Your task to perform on an android device: Open calendar and show me the fourth week of next month Image 0: 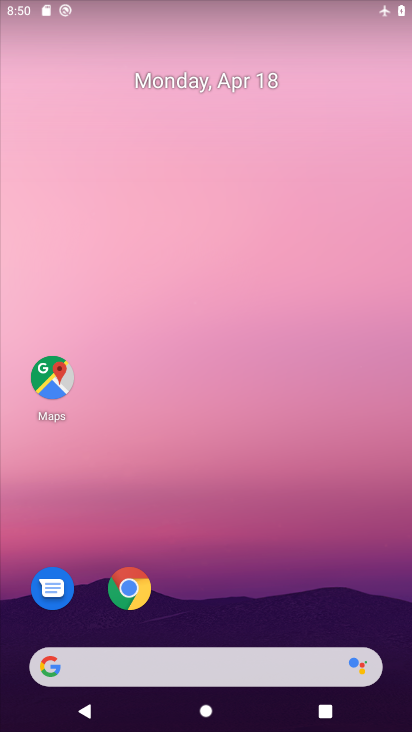
Step 0: drag from (249, 564) to (265, 61)
Your task to perform on an android device: Open calendar and show me the fourth week of next month Image 1: 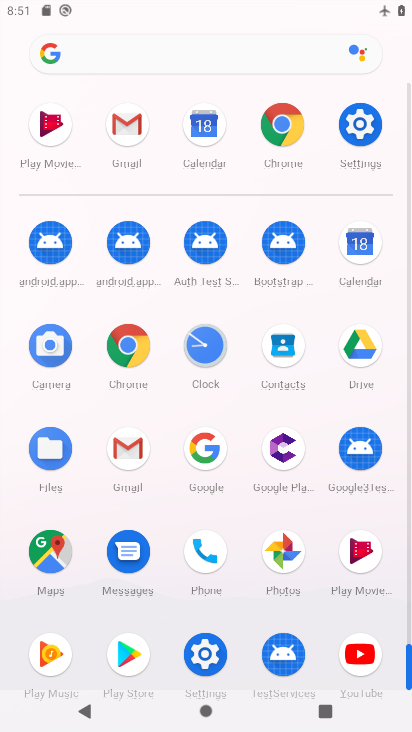
Step 1: click (361, 249)
Your task to perform on an android device: Open calendar and show me the fourth week of next month Image 2: 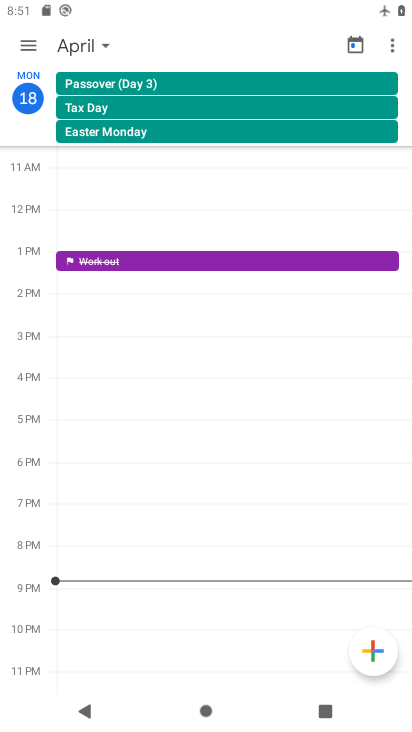
Step 2: click (67, 37)
Your task to perform on an android device: Open calendar and show me the fourth week of next month Image 3: 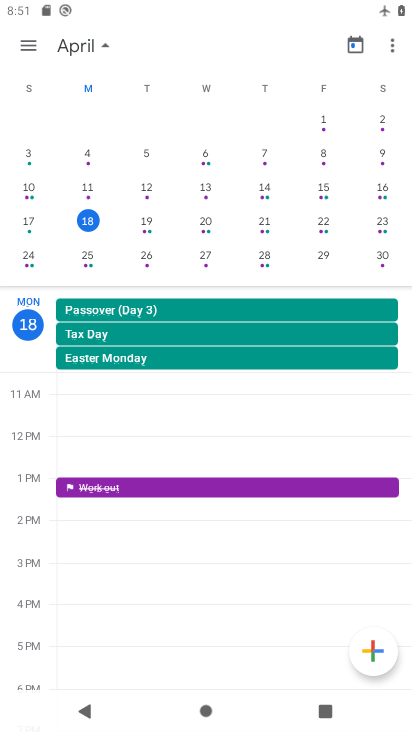
Step 3: drag from (325, 211) to (25, 184)
Your task to perform on an android device: Open calendar and show me the fourth week of next month Image 4: 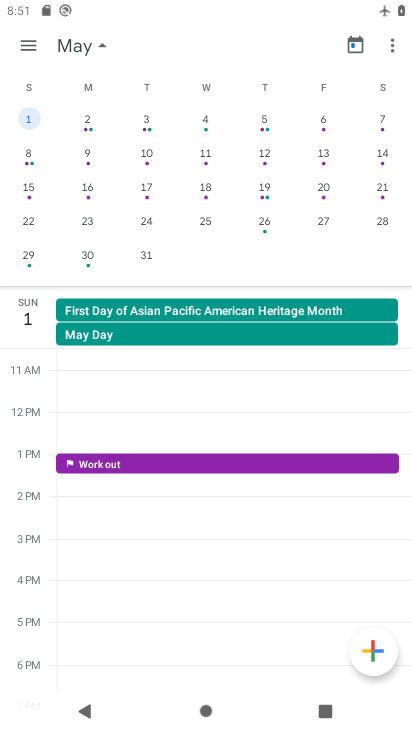
Step 4: click (263, 221)
Your task to perform on an android device: Open calendar and show me the fourth week of next month Image 5: 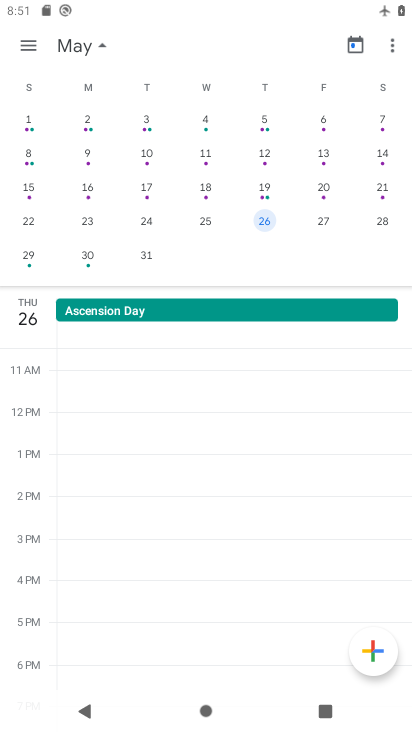
Step 5: task complete